Your task to perform on an android device: turn on translation in the chrome app Image 0: 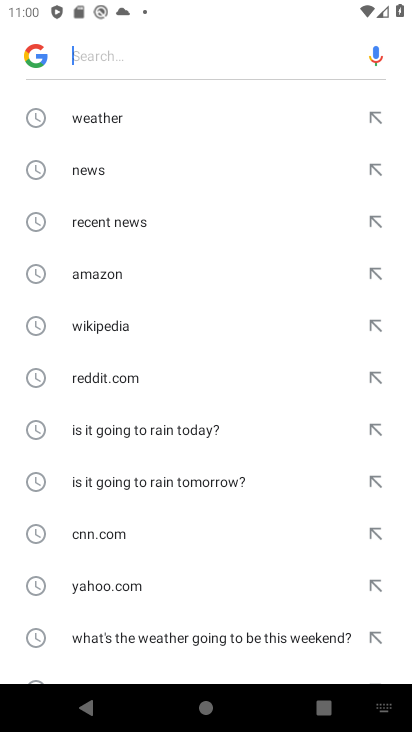
Step 0: press home button
Your task to perform on an android device: turn on translation in the chrome app Image 1: 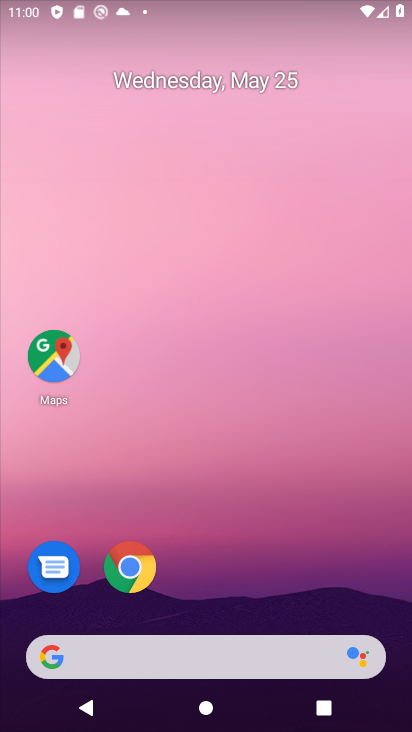
Step 1: click (140, 565)
Your task to perform on an android device: turn on translation in the chrome app Image 2: 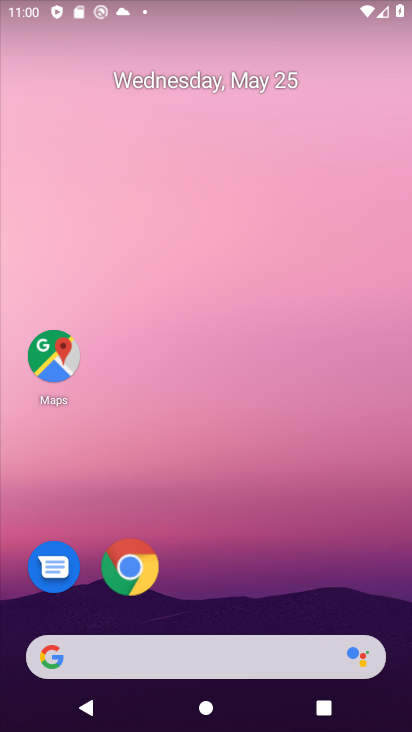
Step 2: click (136, 569)
Your task to perform on an android device: turn on translation in the chrome app Image 3: 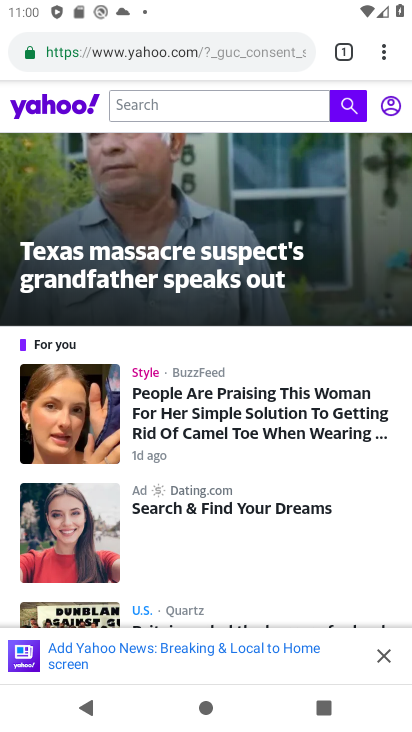
Step 3: click (391, 49)
Your task to perform on an android device: turn on translation in the chrome app Image 4: 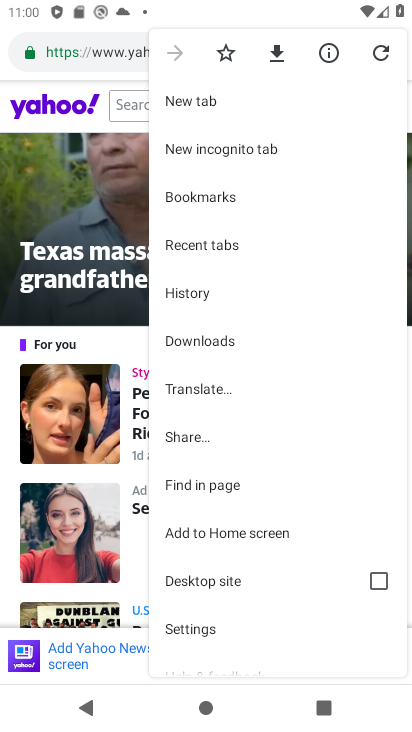
Step 4: click (213, 633)
Your task to perform on an android device: turn on translation in the chrome app Image 5: 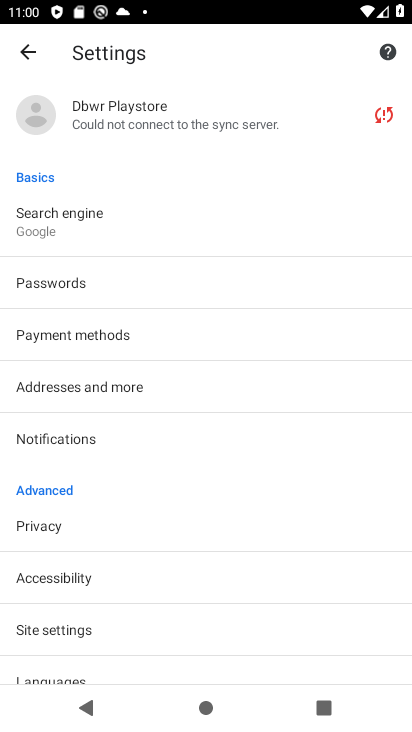
Step 5: drag from (56, 647) to (126, 337)
Your task to perform on an android device: turn on translation in the chrome app Image 6: 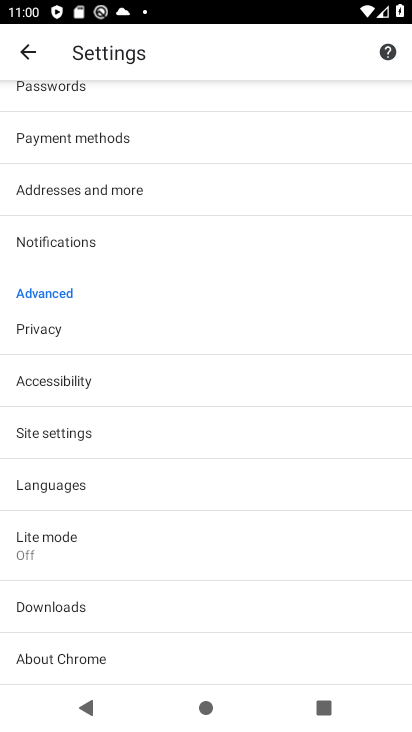
Step 6: click (76, 479)
Your task to perform on an android device: turn on translation in the chrome app Image 7: 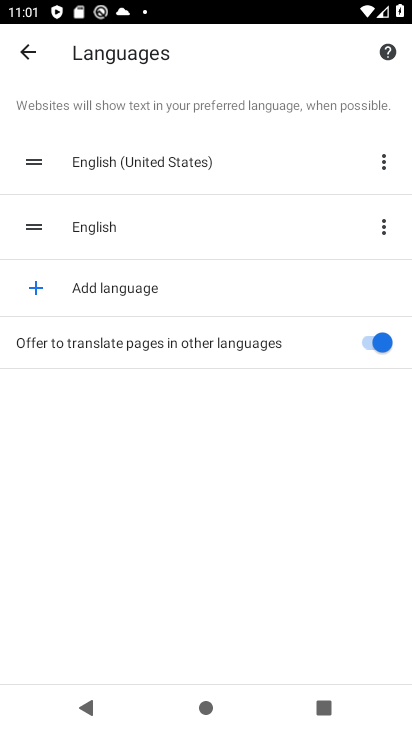
Step 7: task complete